Your task to perform on an android device: turn on notifications settings in the gmail app Image 0: 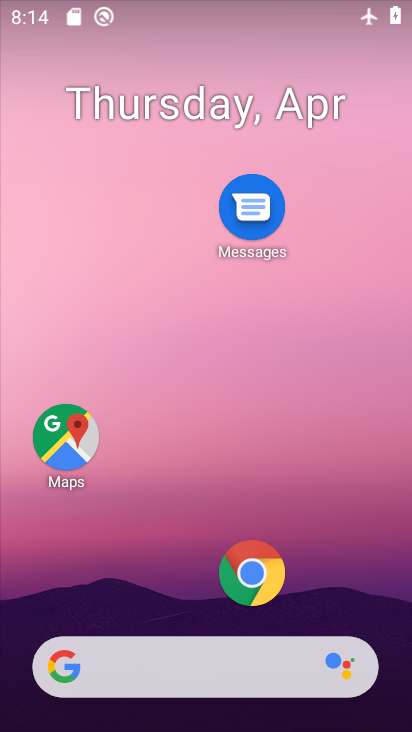
Step 0: drag from (199, 614) to (251, 0)
Your task to perform on an android device: turn on notifications settings in the gmail app Image 1: 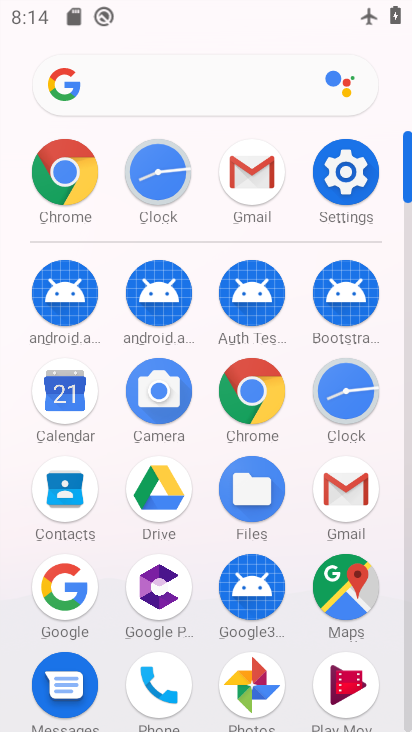
Step 1: click (343, 477)
Your task to perform on an android device: turn on notifications settings in the gmail app Image 2: 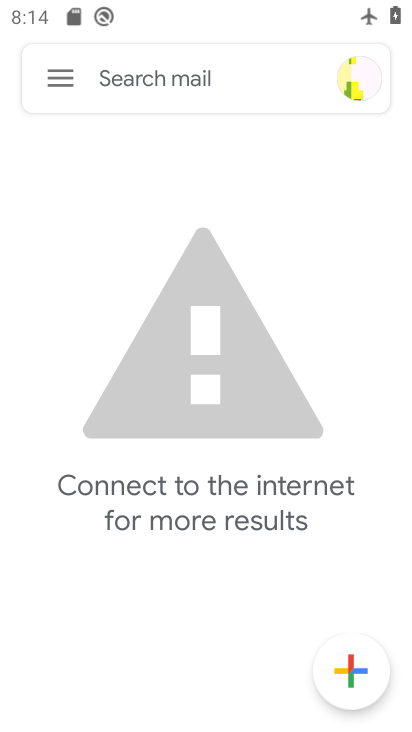
Step 2: click (46, 73)
Your task to perform on an android device: turn on notifications settings in the gmail app Image 3: 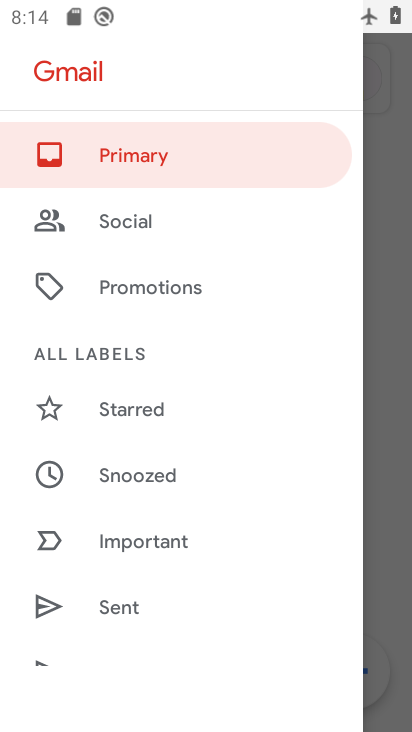
Step 3: drag from (151, 610) to (191, 105)
Your task to perform on an android device: turn on notifications settings in the gmail app Image 4: 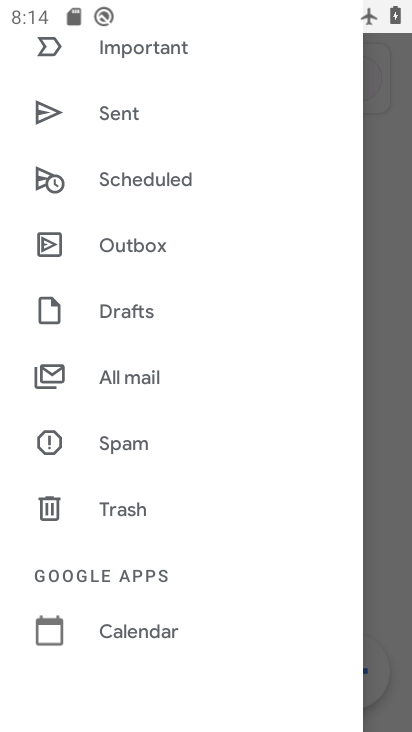
Step 4: drag from (148, 623) to (188, 198)
Your task to perform on an android device: turn on notifications settings in the gmail app Image 5: 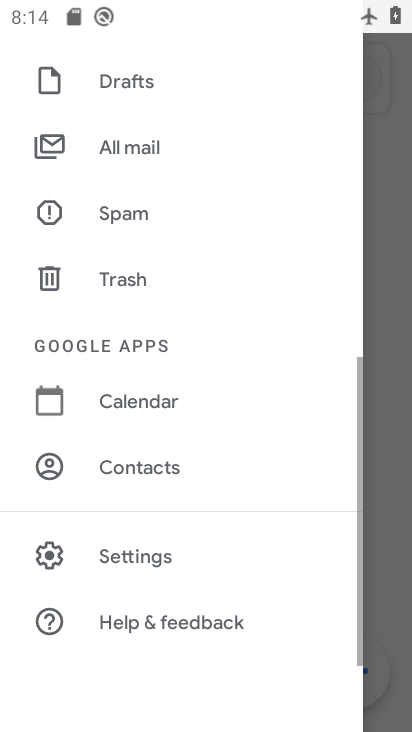
Step 5: click (165, 555)
Your task to perform on an android device: turn on notifications settings in the gmail app Image 6: 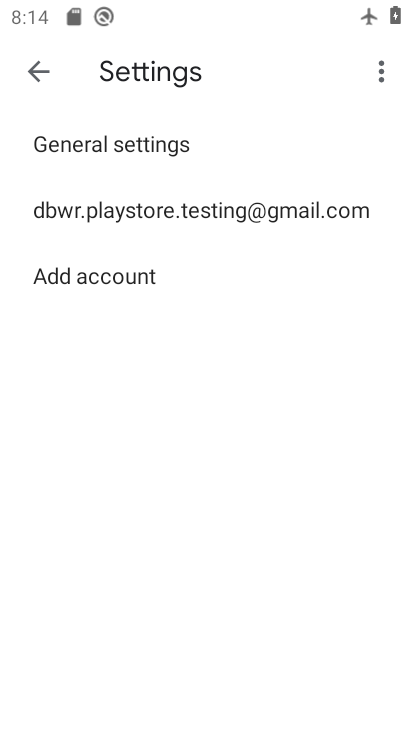
Step 6: click (184, 143)
Your task to perform on an android device: turn on notifications settings in the gmail app Image 7: 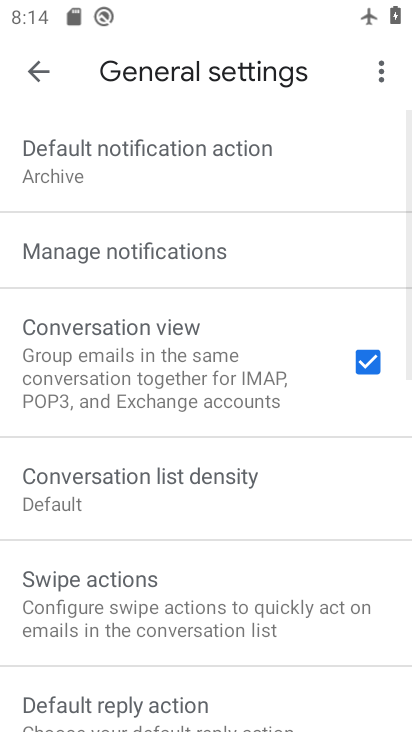
Step 7: click (174, 263)
Your task to perform on an android device: turn on notifications settings in the gmail app Image 8: 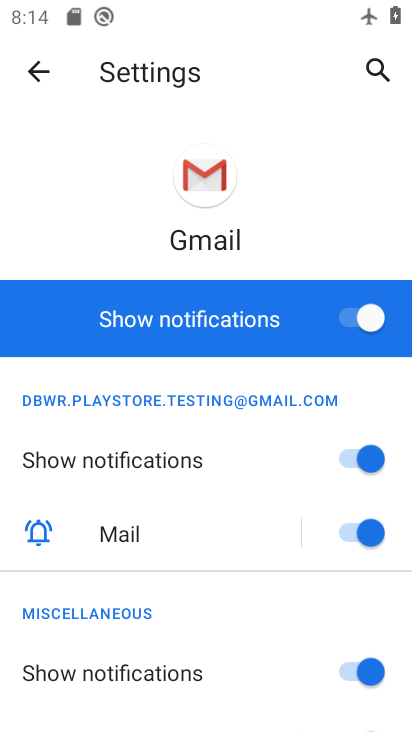
Step 8: task complete